Your task to perform on an android device: turn on the 24-hour format for clock Image 0: 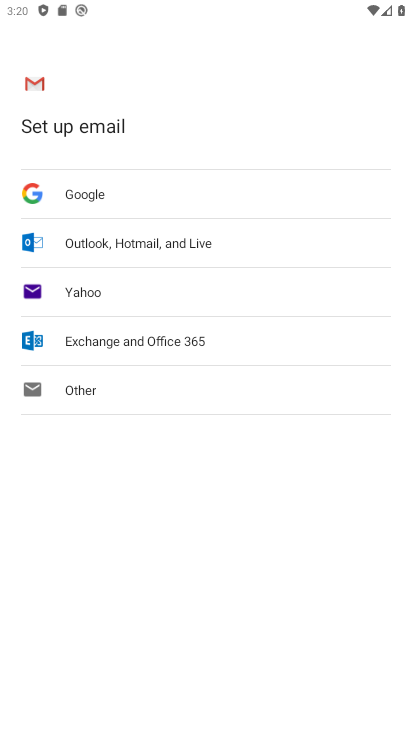
Step 0: press home button
Your task to perform on an android device: turn on the 24-hour format for clock Image 1: 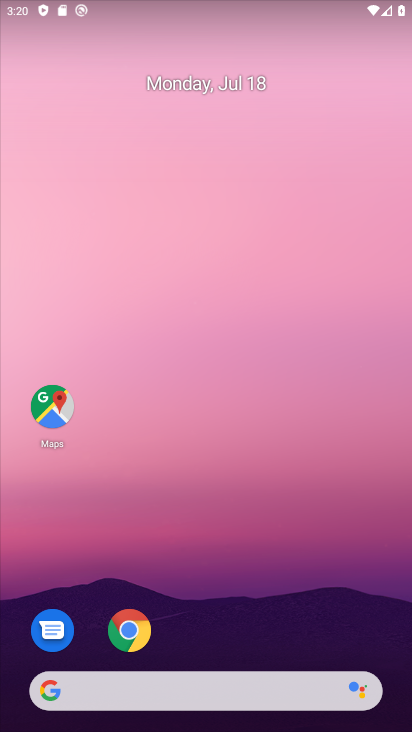
Step 1: drag from (194, 665) to (264, 110)
Your task to perform on an android device: turn on the 24-hour format for clock Image 2: 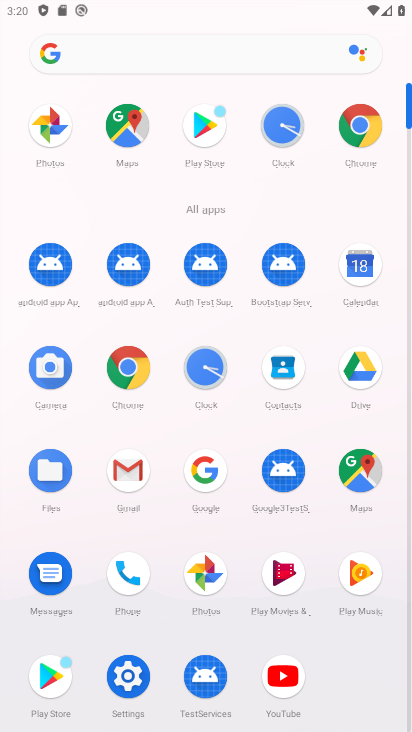
Step 2: click (206, 364)
Your task to perform on an android device: turn on the 24-hour format for clock Image 3: 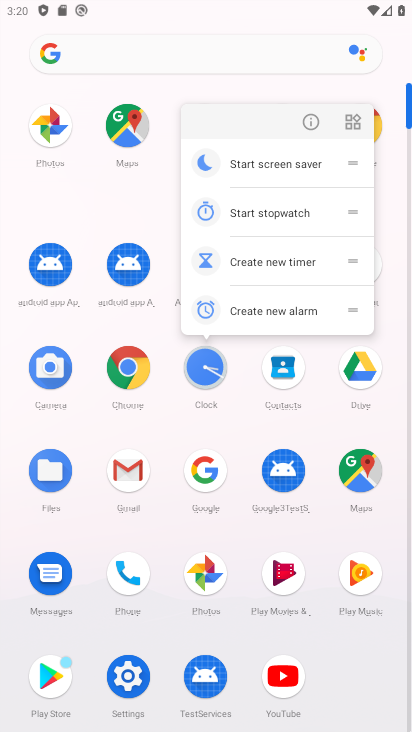
Step 3: click (201, 371)
Your task to perform on an android device: turn on the 24-hour format for clock Image 4: 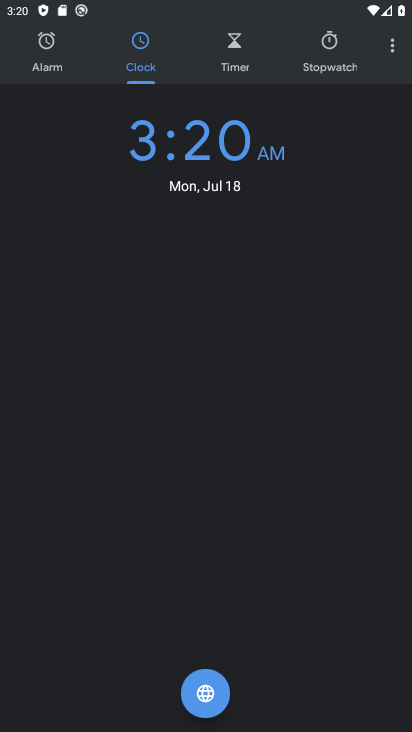
Step 4: click (390, 44)
Your task to perform on an android device: turn on the 24-hour format for clock Image 5: 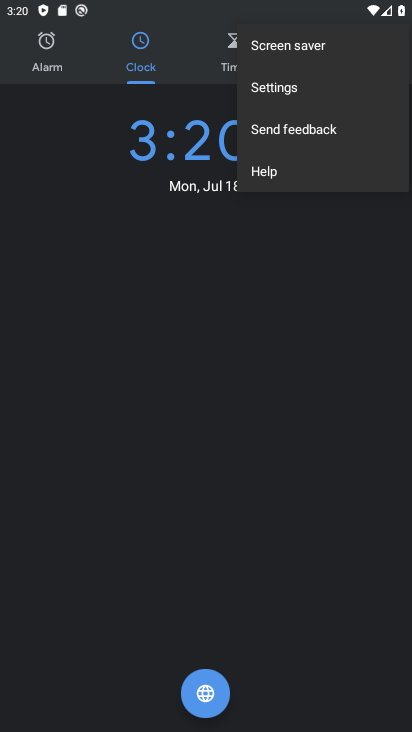
Step 5: click (329, 80)
Your task to perform on an android device: turn on the 24-hour format for clock Image 6: 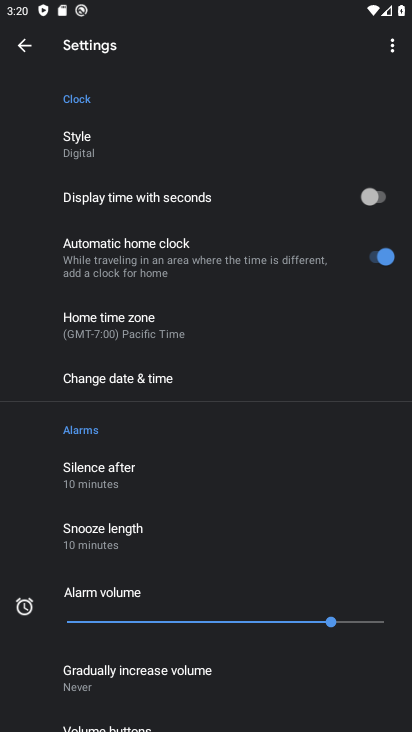
Step 6: drag from (170, 573) to (251, 341)
Your task to perform on an android device: turn on the 24-hour format for clock Image 7: 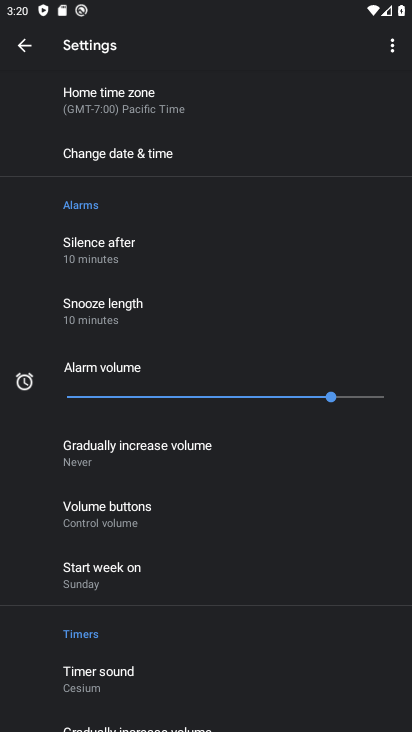
Step 7: click (163, 162)
Your task to perform on an android device: turn on the 24-hour format for clock Image 8: 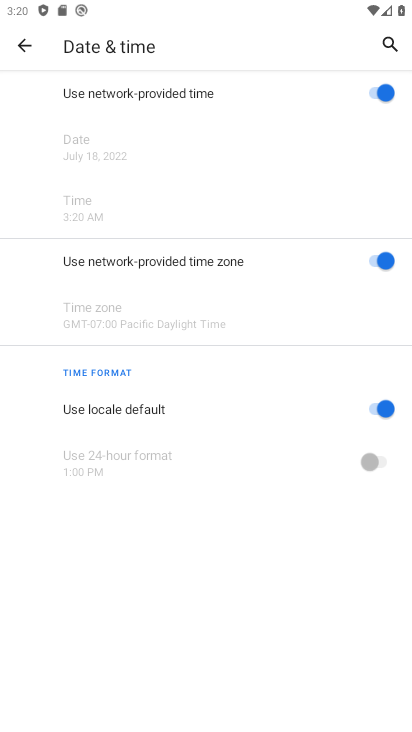
Step 8: click (385, 406)
Your task to perform on an android device: turn on the 24-hour format for clock Image 9: 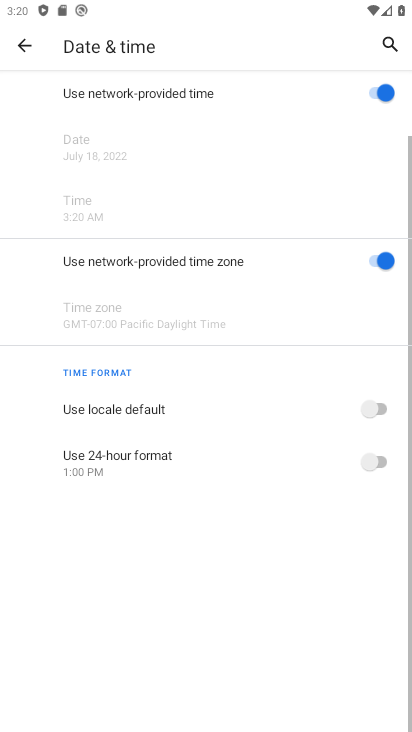
Step 9: click (383, 457)
Your task to perform on an android device: turn on the 24-hour format for clock Image 10: 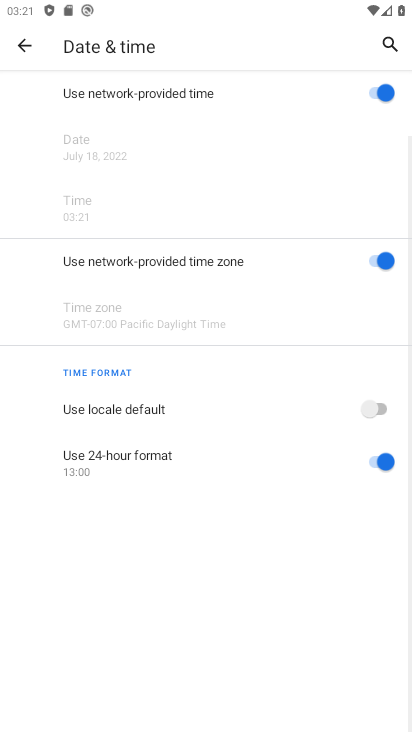
Step 10: task complete